Your task to perform on an android device: open app "Upside-Cash back on gas & food" (install if not already installed) and enter user name: "transatlantic@gmail.com" and password: "experiences" Image 0: 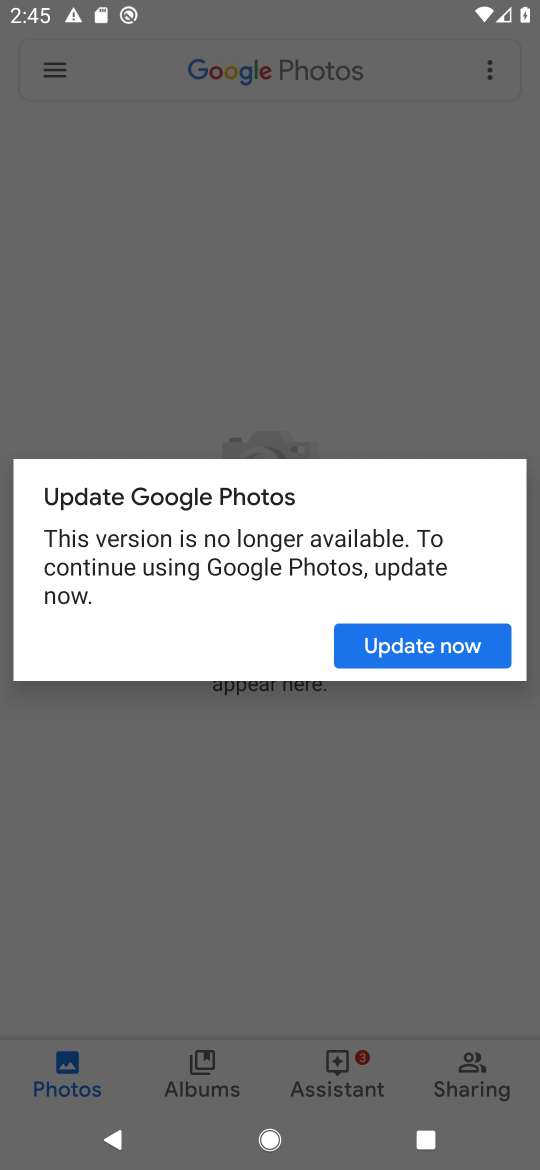
Step 0: press home button
Your task to perform on an android device: open app "Upside-Cash back on gas & food" (install if not already installed) and enter user name: "transatlantic@gmail.com" and password: "experiences" Image 1: 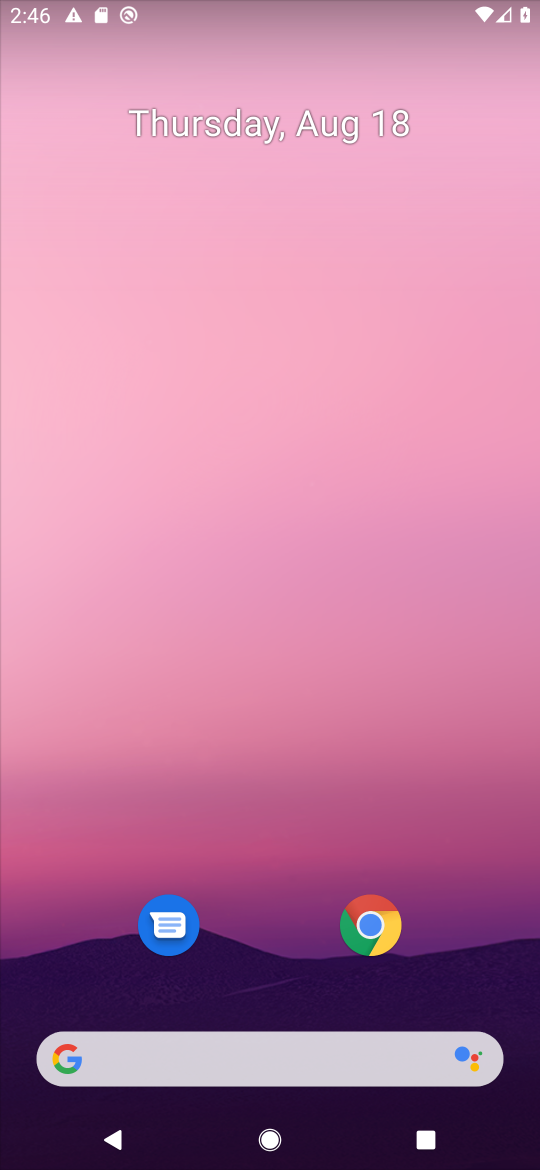
Step 1: drag from (263, 834) to (270, 359)
Your task to perform on an android device: open app "Upside-Cash back on gas & food" (install if not already installed) and enter user name: "transatlantic@gmail.com" and password: "experiences" Image 2: 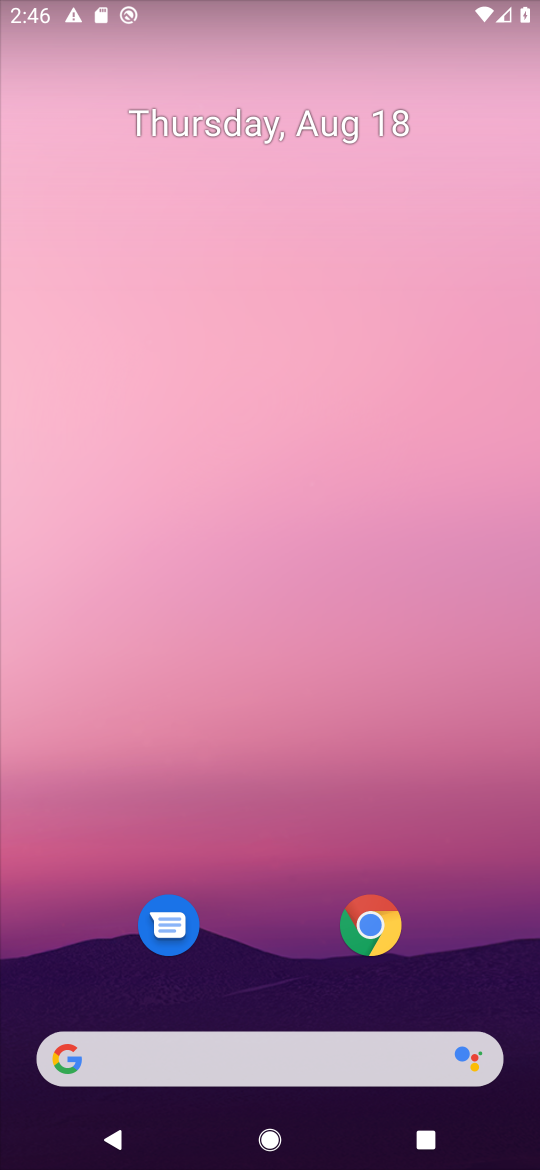
Step 2: drag from (273, 985) to (288, 317)
Your task to perform on an android device: open app "Upside-Cash back on gas & food" (install if not already installed) and enter user name: "transatlantic@gmail.com" and password: "experiences" Image 3: 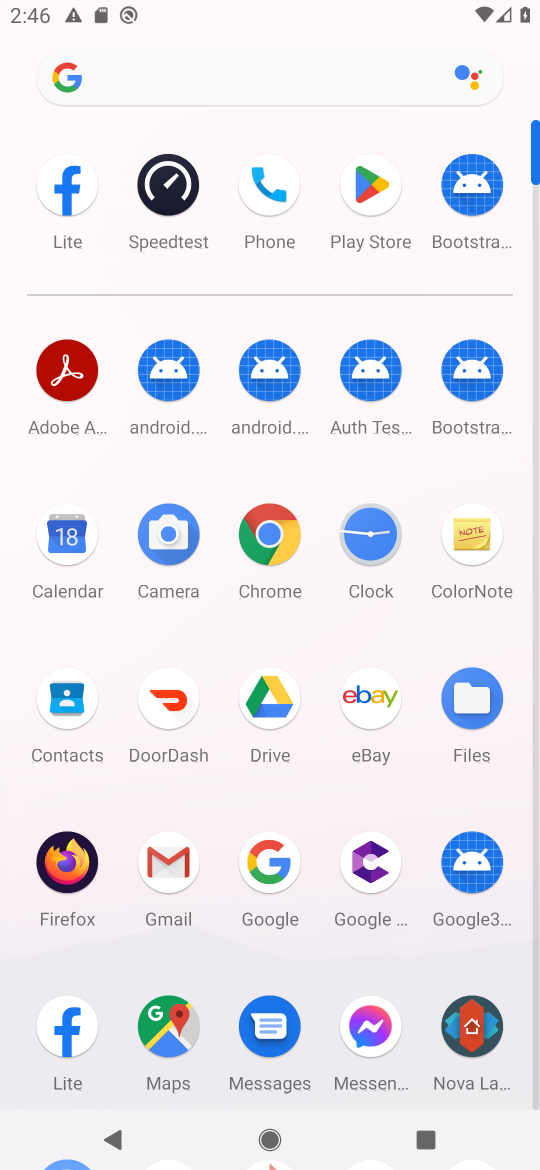
Step 3: click (373, 184)
Your task to perform on an android device: open app "Upside-Cash back on gas & food" (install if not already installed) and enter user name: "transatlantic@gmail.com" and password: "experiences" Image 4: 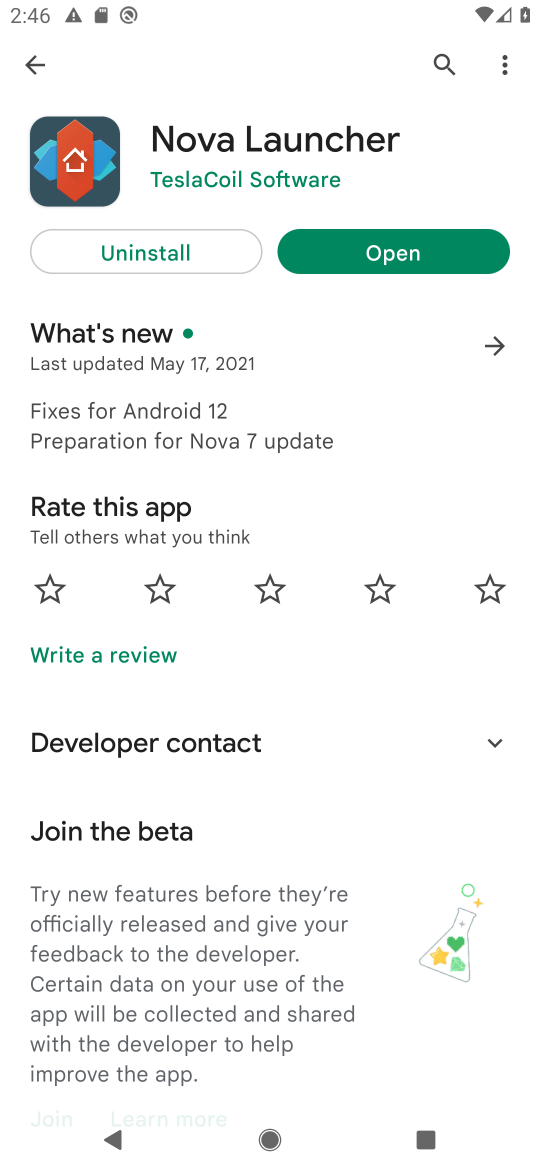
Step 4: click (42, 62)
Your task to perform on an android device: open app "Upside-Cash back on gas & food" (install if not already installed) and enter user name: "transatlantic@gmail.com" and password: "experiences" Image 5: 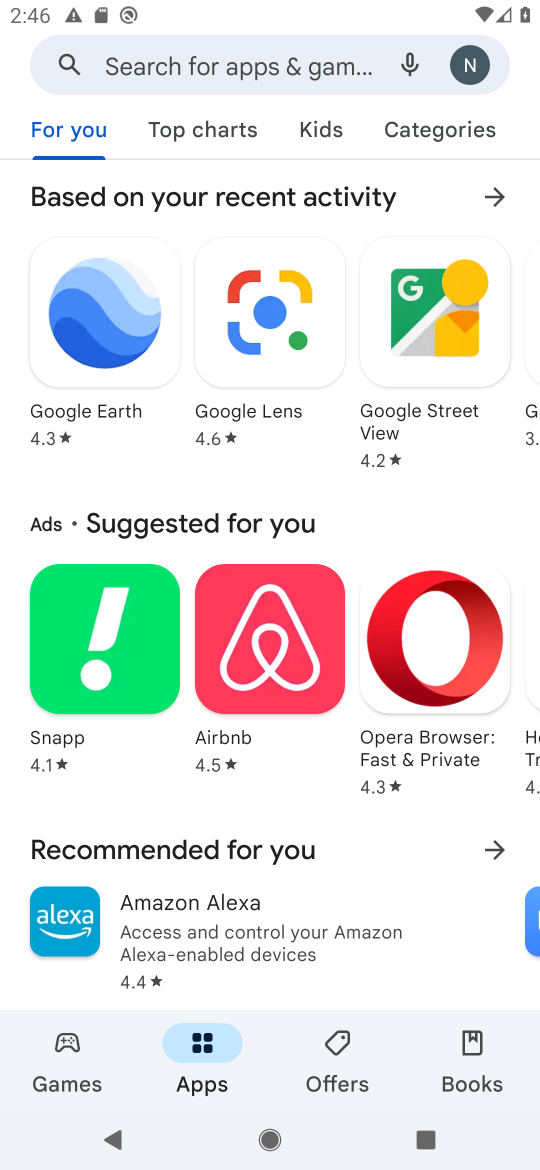
Step 5: click (256, 64)
Your task to perform on an android device: open app "Upside-Cash back on gas & food" (install if not already installed) and enter user name: "transatlantic@gmail.com" and password: "experiences" Image 6: 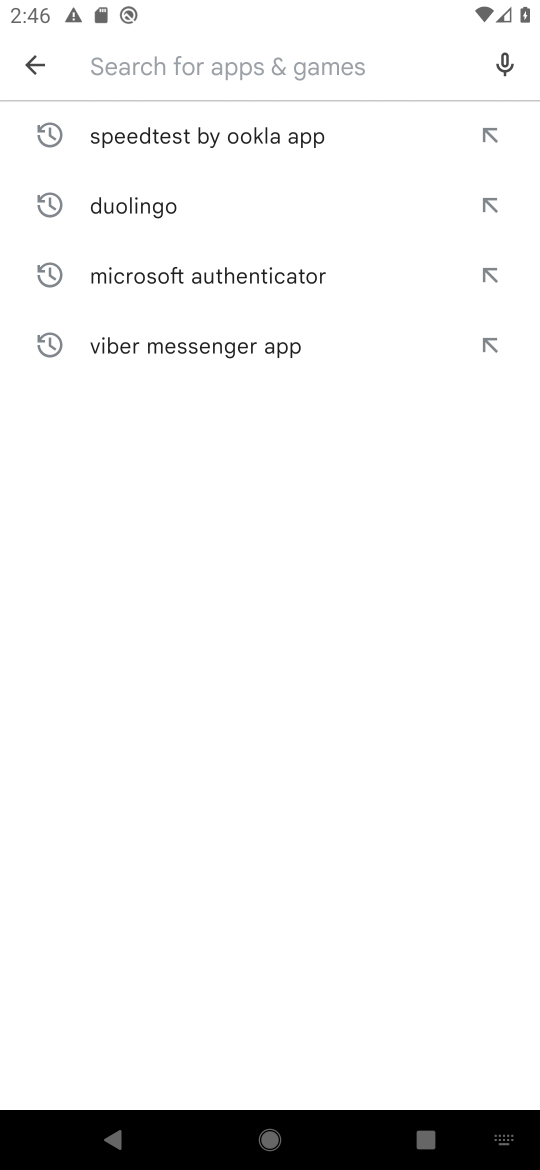
Step 6: type "Upside-Cash back on gas & food"
Your task to perform on an android device: open app "Upside-Cash back on gas & food" (install if not already installed) and enter user name: "transatlantic@gmail.com" and password: "experiences" Image 7: 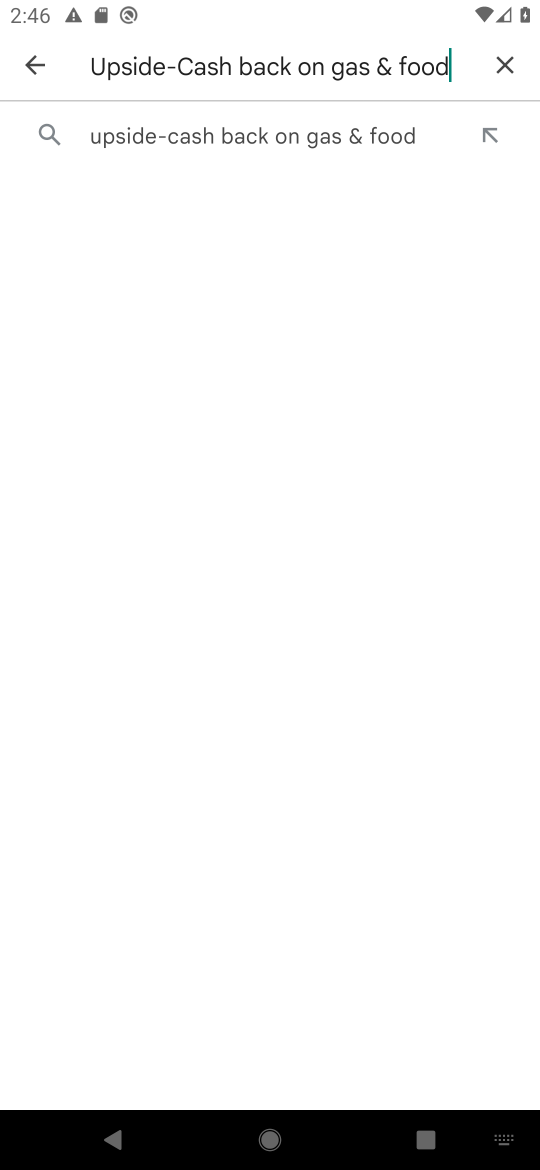
Step 7: click (279, 132)
Your task to perform on an android device: open app "Upside-Cash back on gas & food" (install if not already installed) and enter user name: "transatlantic@gmail.com" and password: "experiences" Image 8: 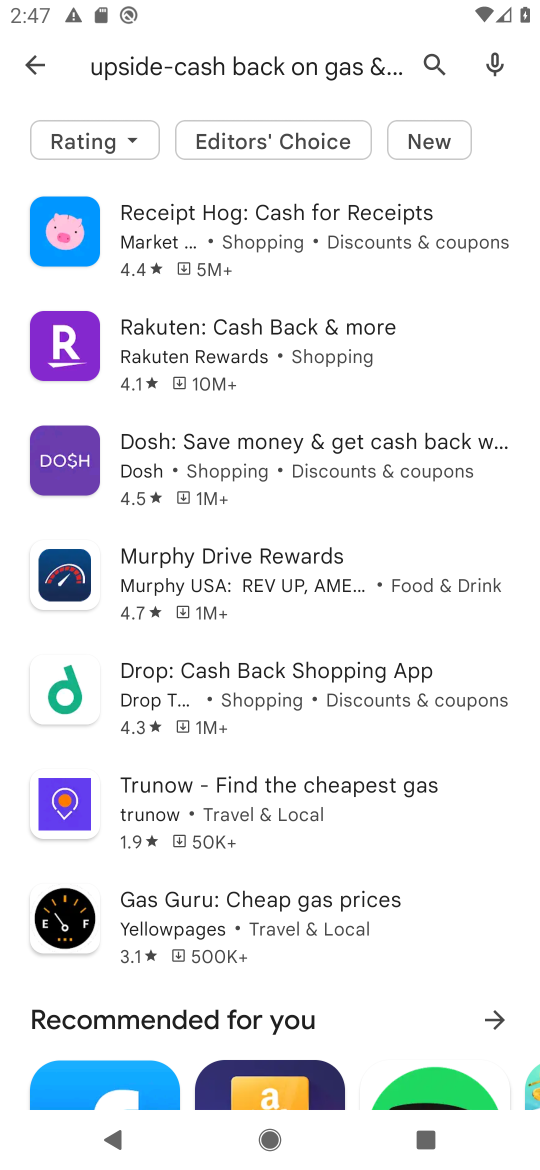
Step 8: task complete